Your task to perform on an android device: turn off sleep mode Image 0: 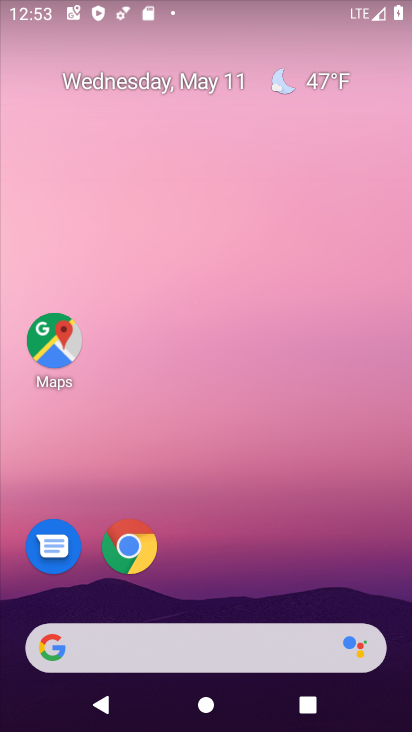
Step 0: drag from (236, 621) to (354, 210)
Your task to perform on an android device: turn off sleep mode Image 1: 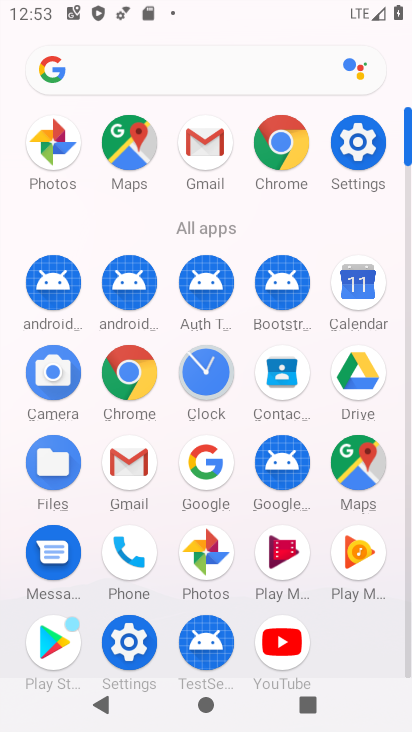
Step 1: click (120, 631)
Your task to perform on an android device: turn off sleep mode Image 2: 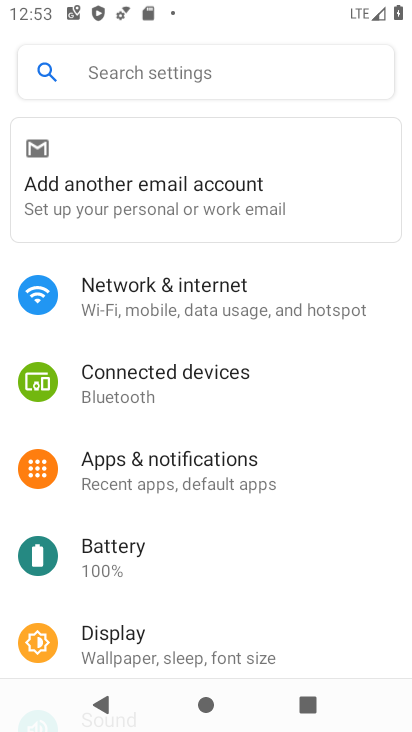
Step 2: click (158, 643)
Your task to perform on an android device: turn off sleep mode Image 3: 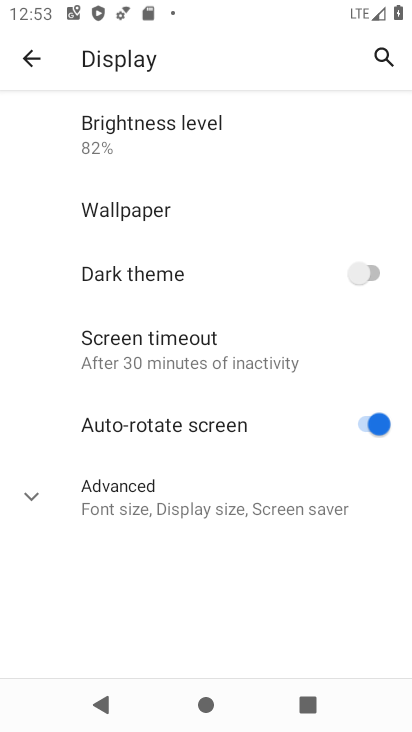
Step 3: click (151, 515)
Your task to perform on an android device: turn off sleep mode Image 4: 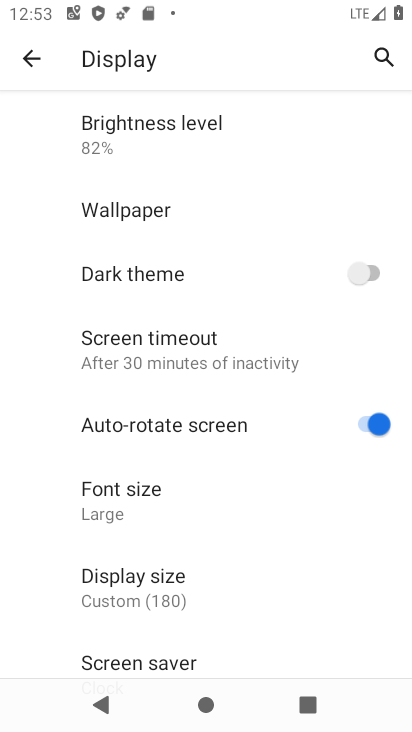
Step 4: task complete